Your task to perform on an android device: Open the stopwatch Image 0: 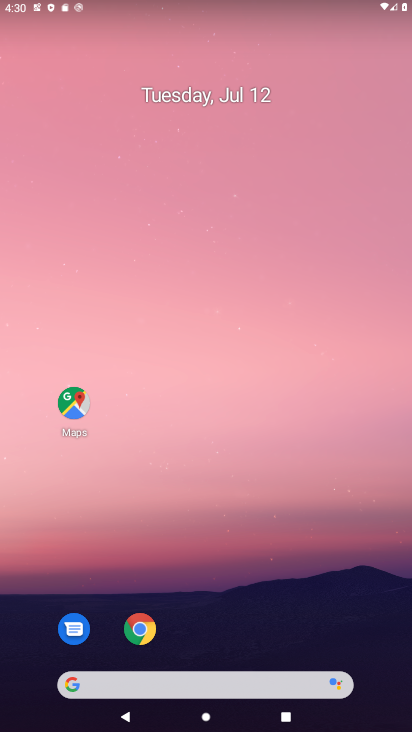
Step 0: press home button
Your task to perform on an android device: Open the stopwatch Image 1: 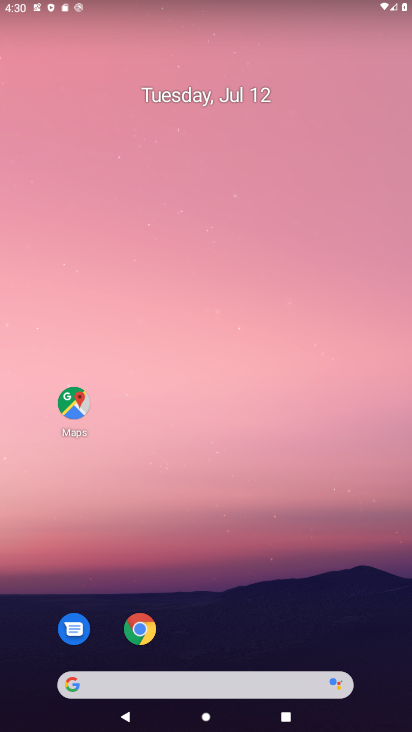
Step 1: drag from (266, 636) to (313, 14)
Your task to perform on an android device: Open the stopwatch Image 2: 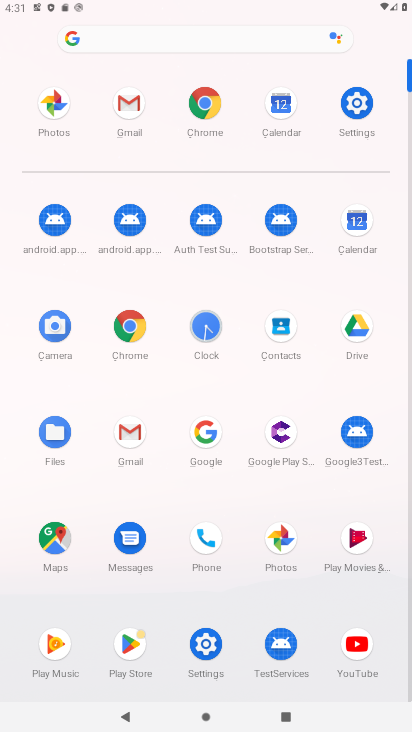
Step 2: click (212, 322)
Your task to perform on an android device: Open the stopwatch Image 3: 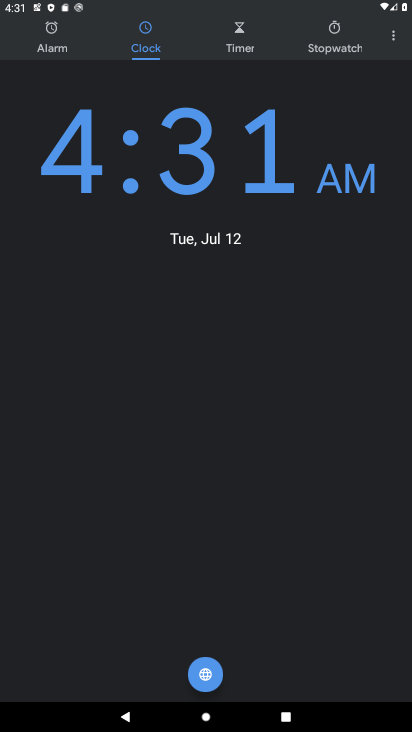
Step 3: click (333, 36)
Your task to perform on an android device: Open the stopwatch Image 4: 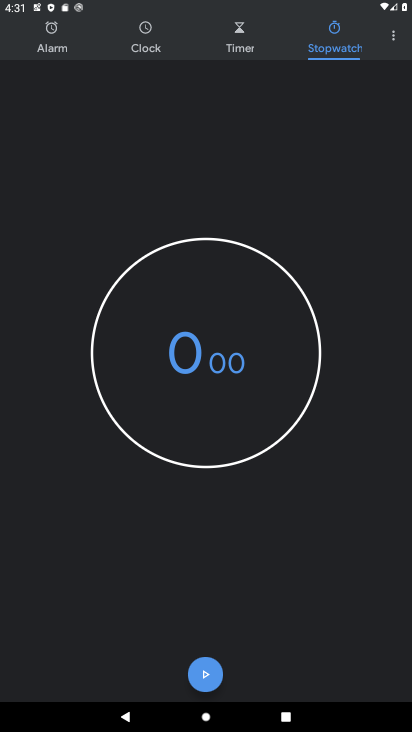
Step 4: task complete